Your task to perform on an android device: turn on sleep mode Image 0: 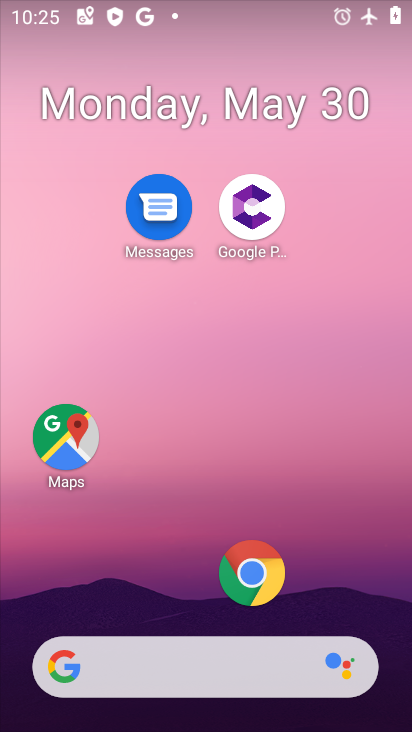
Step 0: drag from (199, 635) to (294, 2)
Your task to perform on an android device: turn on sleep mode Image 1: 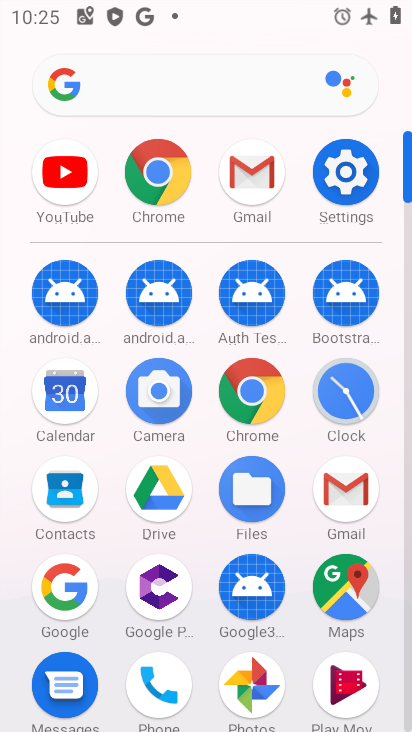
Step 1: click (351, 183)
Your task to perform on an android device: turn on sleep mode Image 2: 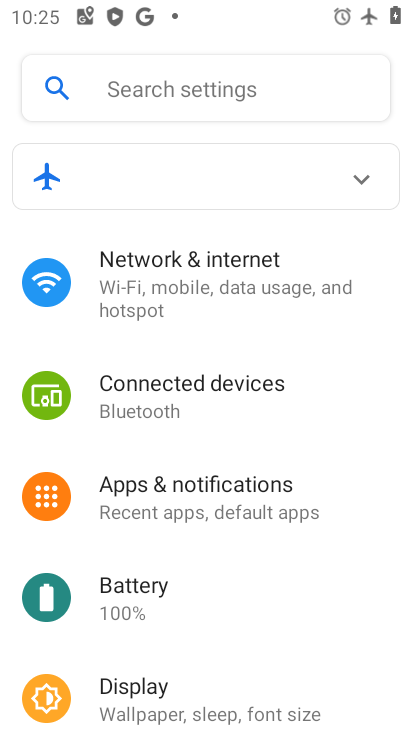
Step 2: click (148, 689)
Your task to perform on an android device: turn on sleep mode Image 3: 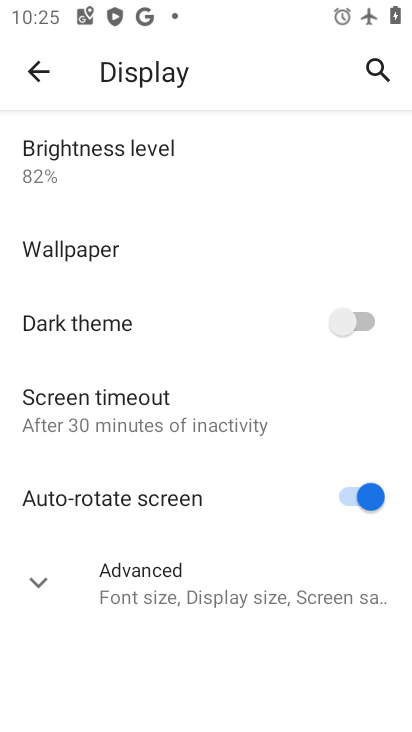
Step 3: click (135, 585)
Your task to perform on an android device: turn on sleep mode Image 4: 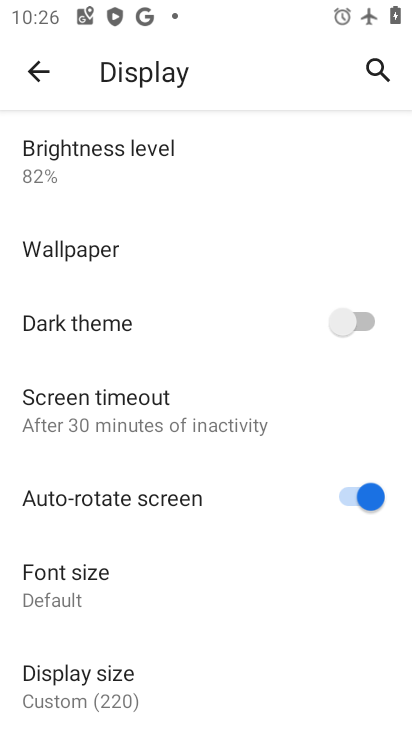
Step 4: task complete